Your task to perform on an android device: make emails show in primary in the gmail app Image 0: 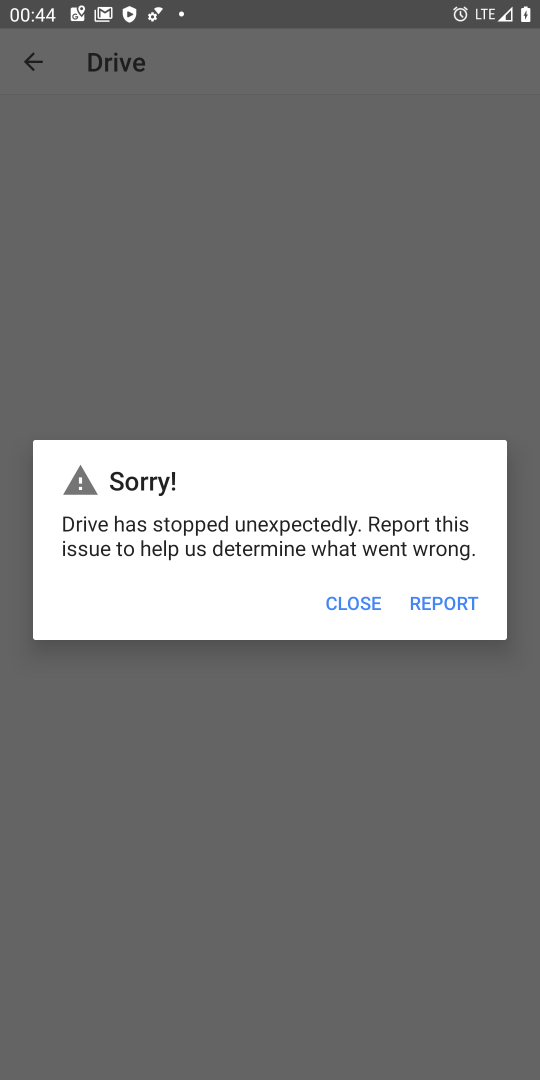
Step 0: press home button
Your task to perform on an android device: make emails show in primary in the gmail app Image 1: 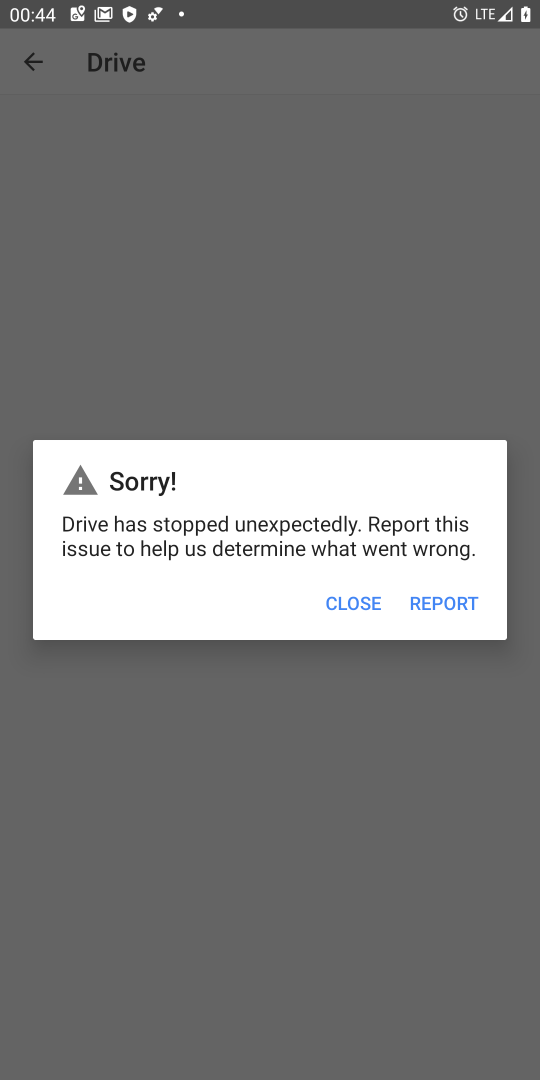
Step 1: press home button
Your task to perform on an android device: make emails show in primary in the gmail app Image 2: 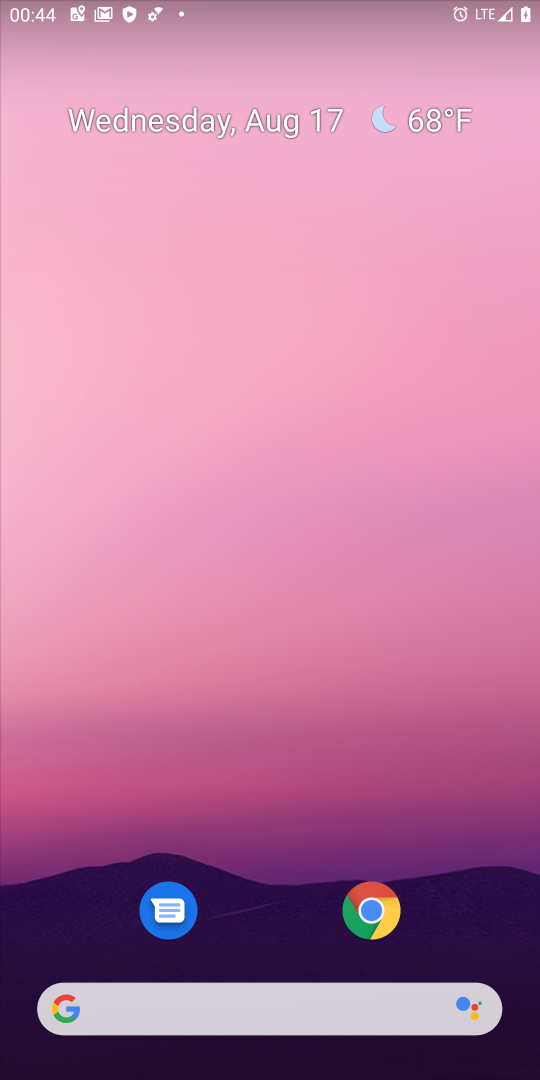
Step 2: press home button
Your task to perform on an android device: make emails show in primary in the gmail app Image 3: 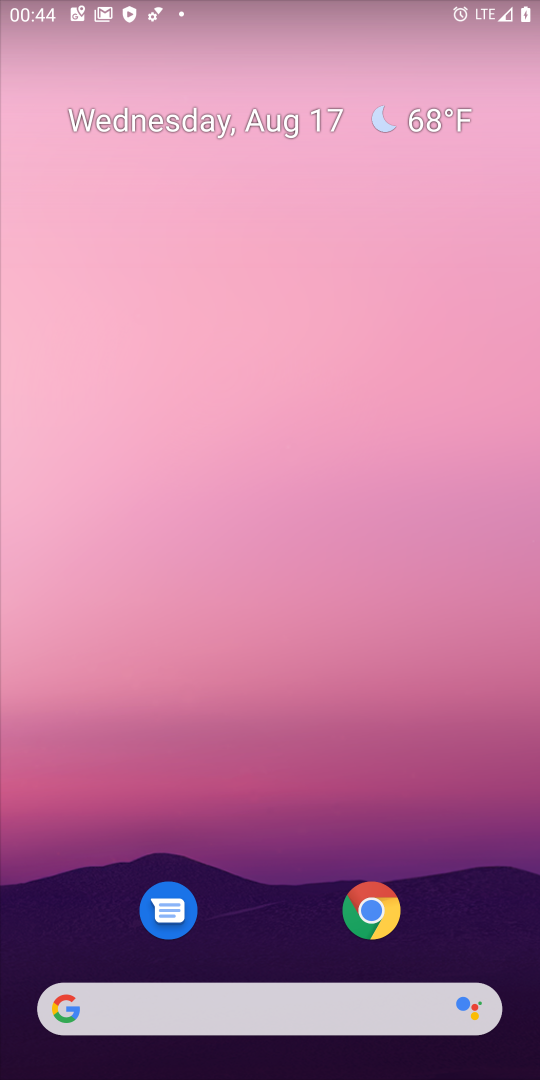
Step 3: drag from (261, 916) to (270, 19)
Your task to perform on an android device: make emails show in primary in the gmail app Image 4: 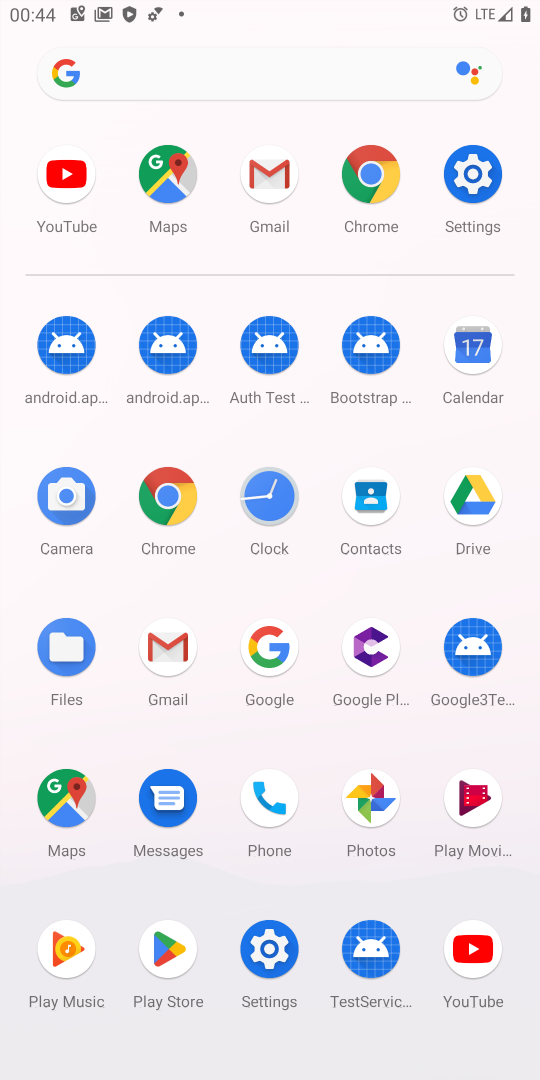
Step 4: click (178, 657)
Your task to perform on an android device: make emails show in primary in the gmail app Image 5: 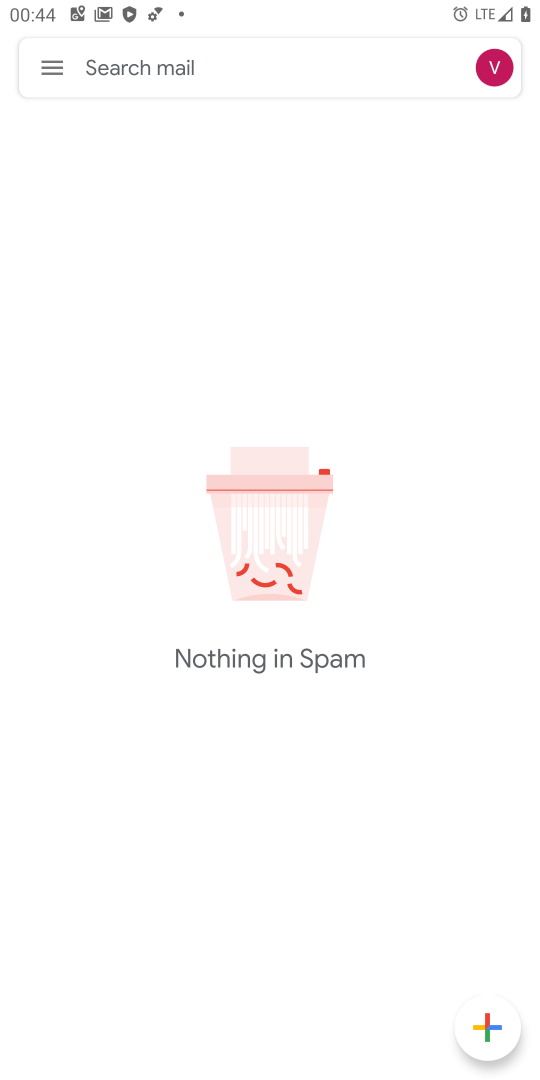
Step 5: click (59, 59)
Your task to perform on an android device: make emails show in primary in the gmail app Image 6: 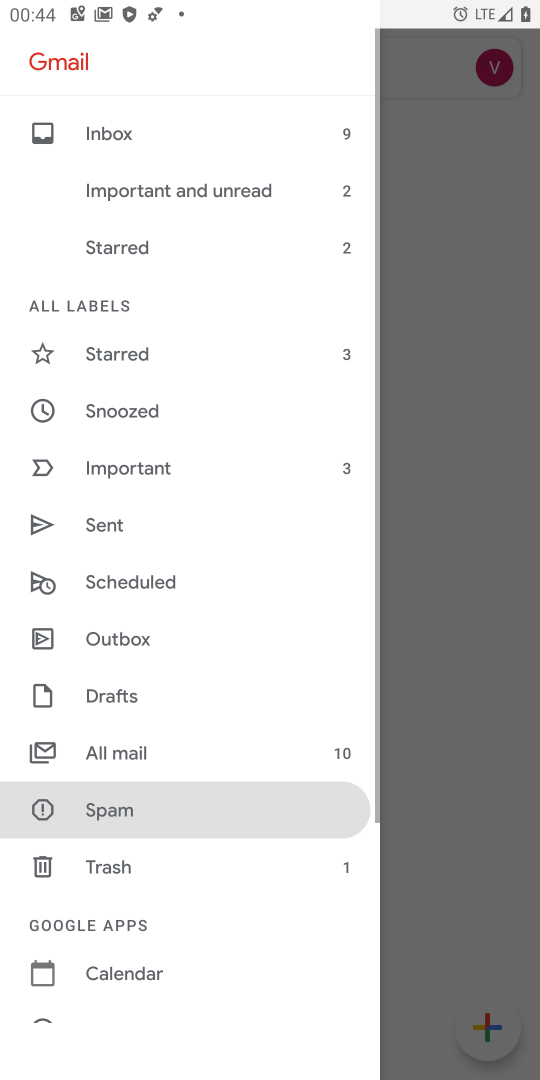
Step 6: drag from (100, 1006) to (201, 431)
Your task to perform on an android device: make emails show in primary in the gmail app Image 7: 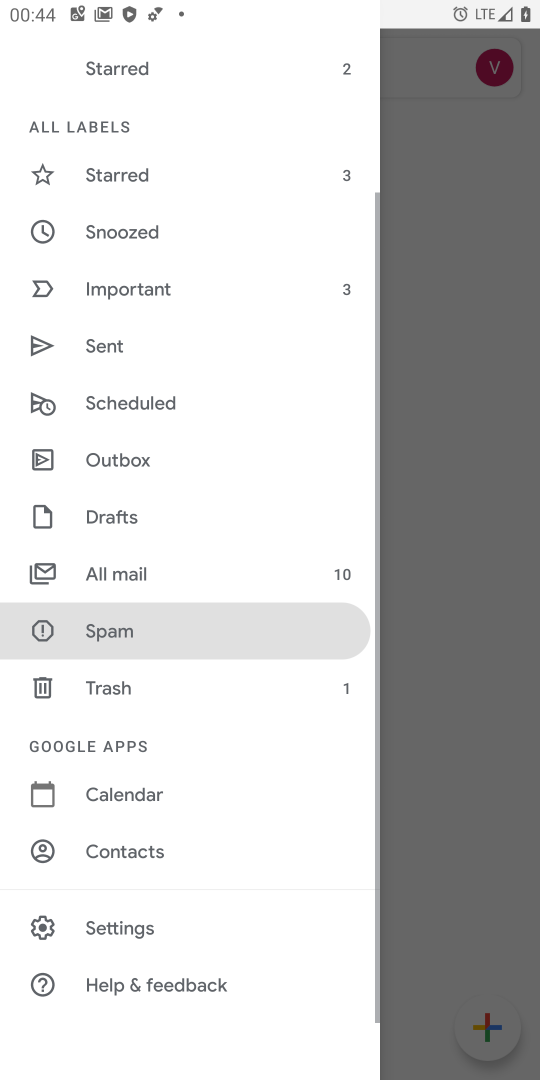
Step 7: click (127, 945)
Your task to perform on an android device: make emails show in primary in the gmail app Image 8: 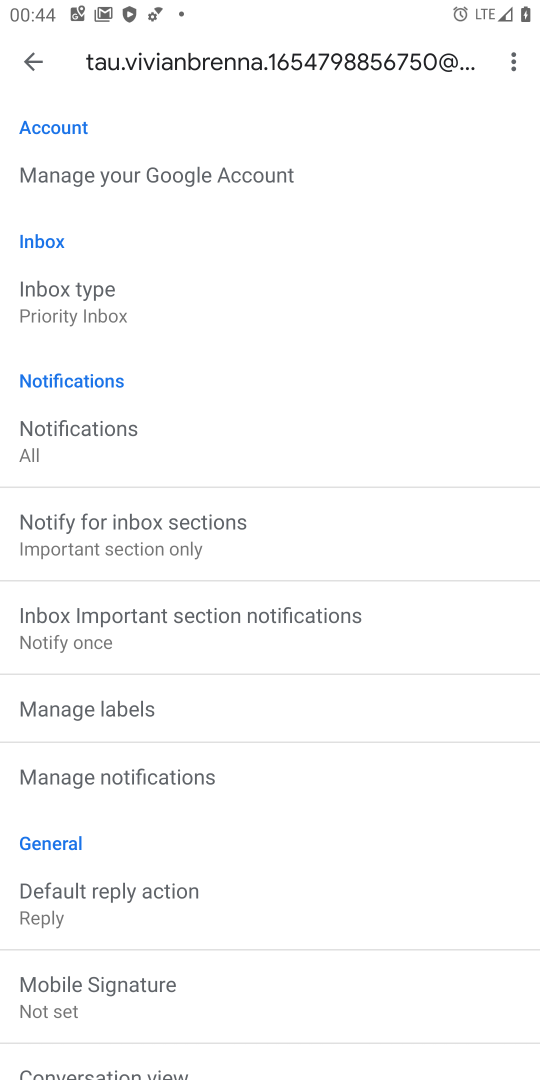
Step 8: click (88, 290)
Your task to perform on an android device: make emails show in primary in the gmail app Image 9: 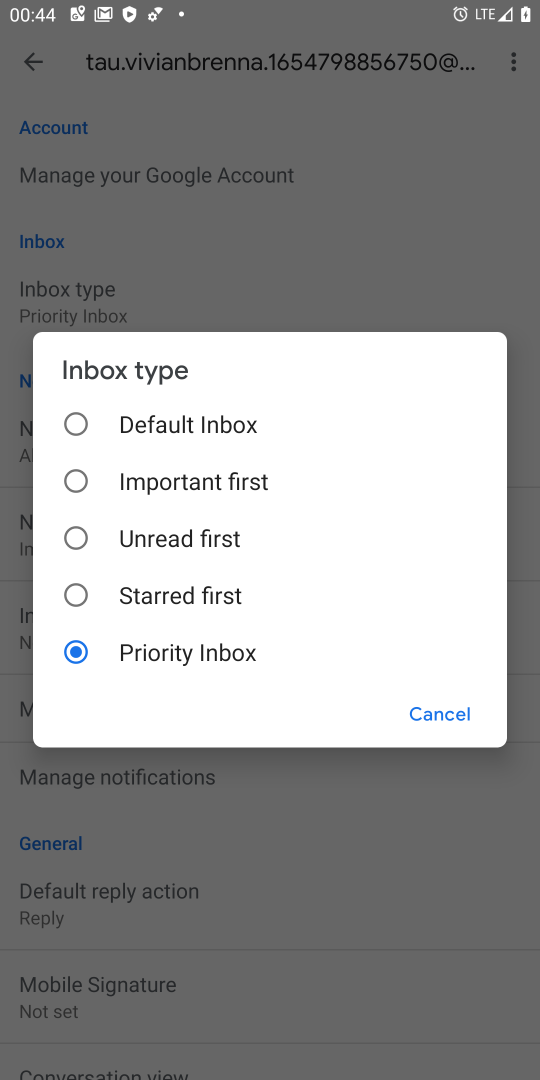
Step 9: click (168, 426)
Your task to perform on an android device: make emails show in primary in the gmail app Image 10: 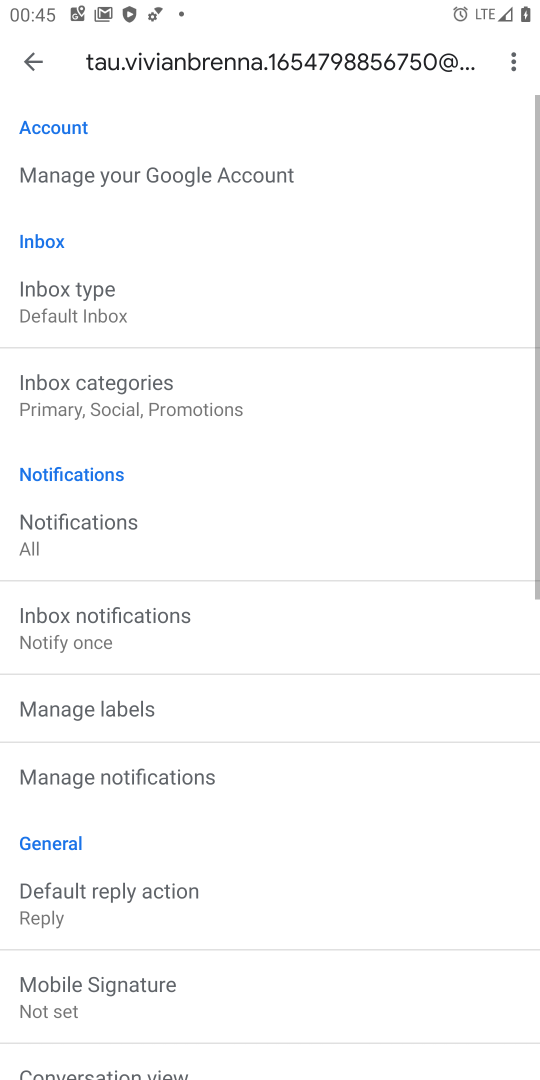
Step 10: click (133, 403)
Your task to perform on an android device: make emails show in primary in the gmail app Image 11: 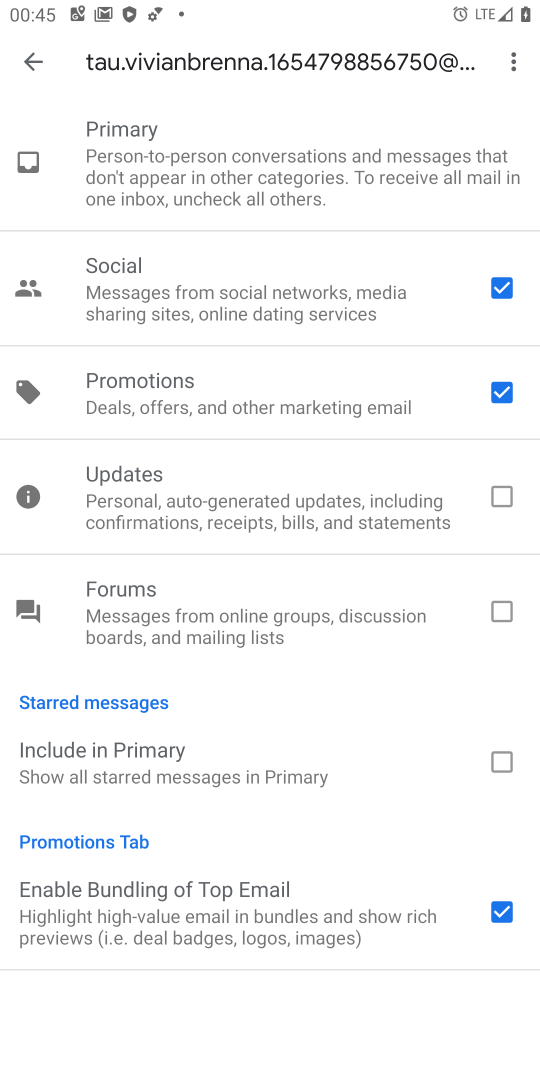
Step 11: task complete